Your task to perform on an android device: Go to Yahoo.com Image 0: 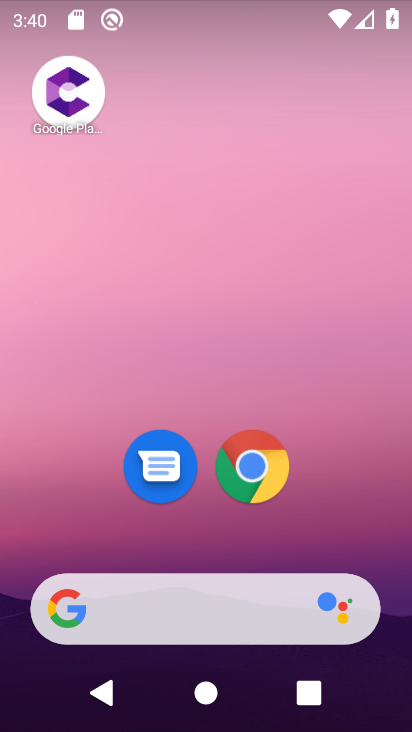
Step 0: click (254, 460)
Your task to perform on an android device: Go to Yahoo.com Image 1: 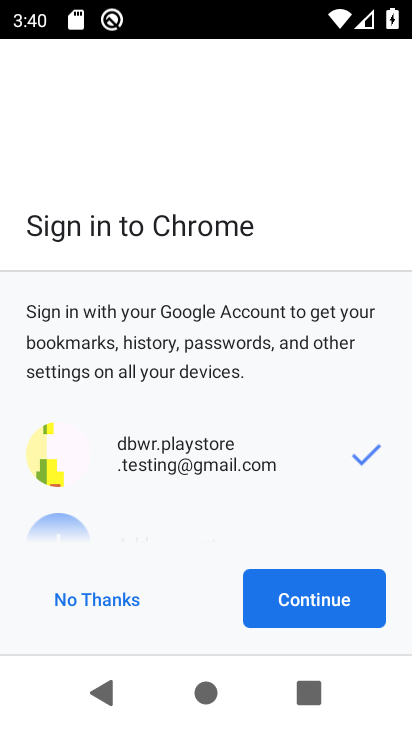
Step 1: click (328, 608)
Your task to perform on an android device: Go to Yahoo.com Image 2: 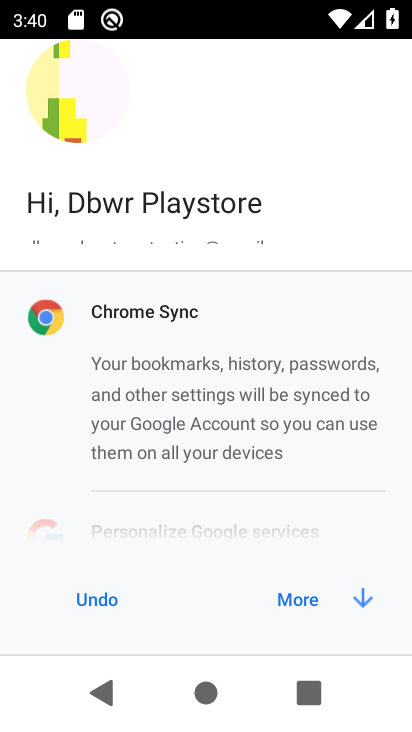
Step 2: click (313, 607)
Your task to perform on an android device: Go to Yahoo.com Image 3: 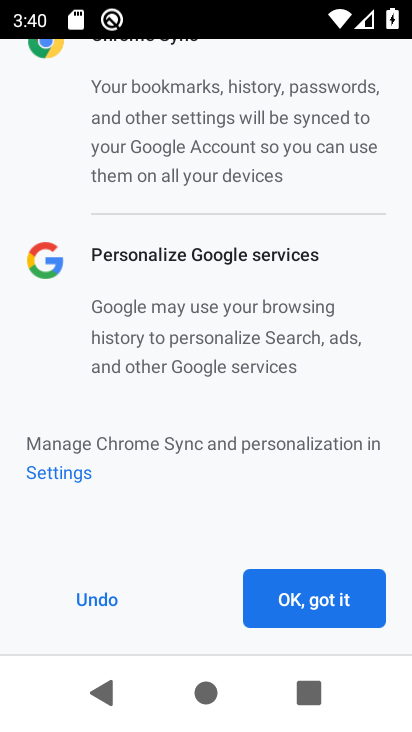
Step 3: click (329, 588)
Your task to perform on an android device: Go to Yahoo.com Image 4: 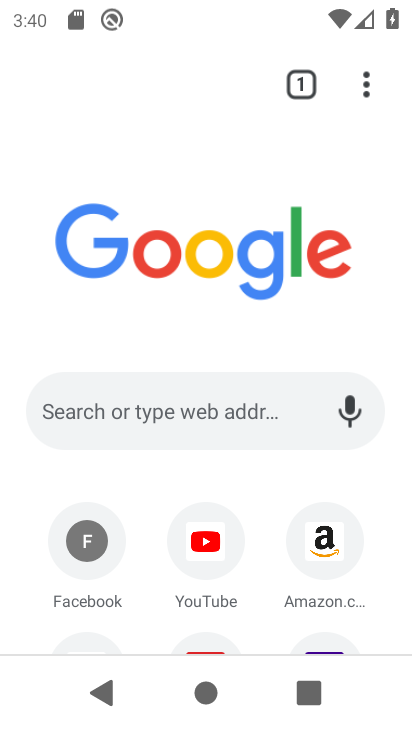
Step 4: drag from (150, 537) to (198, 149)
Your task to perform on an android device: Go to Yahoo.com Image 5: 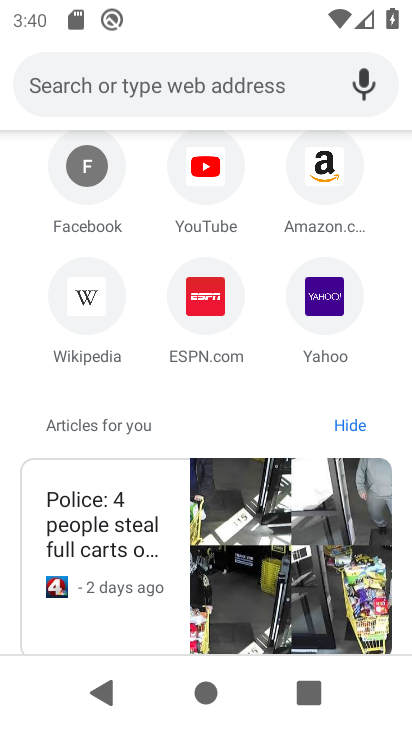
Step 5: click (319, 305)
Your task to perform on an android device: Go to Yahoo.com Image 6: 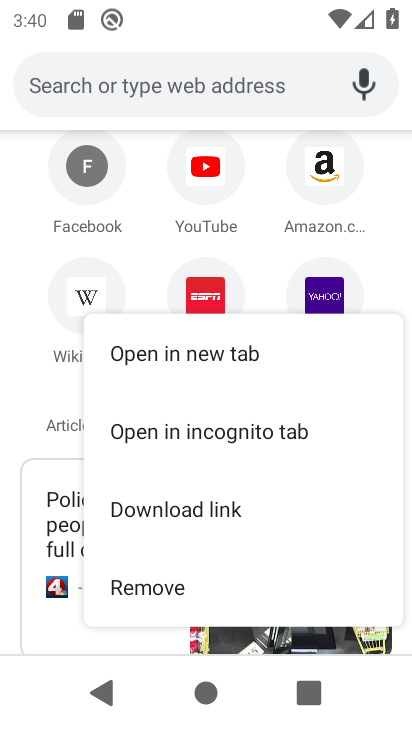
Step 6: click (309, 277)
Your task to perform on an android device: Go to Yahoo.com Image 7: 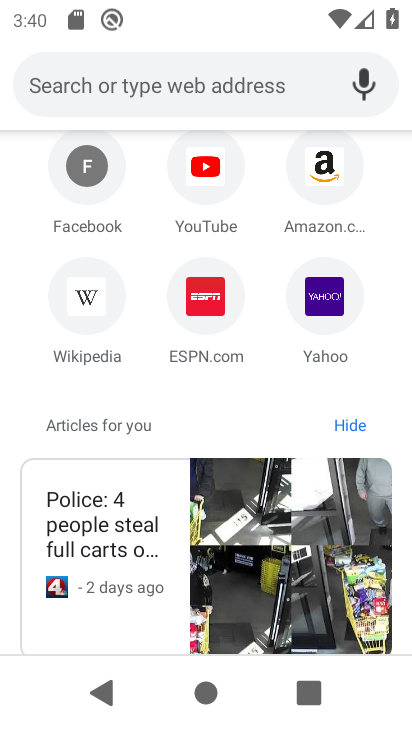
Step 7: click (342, 296)
Your task to perform on an android device: Go to Yahoo.com Image 8: 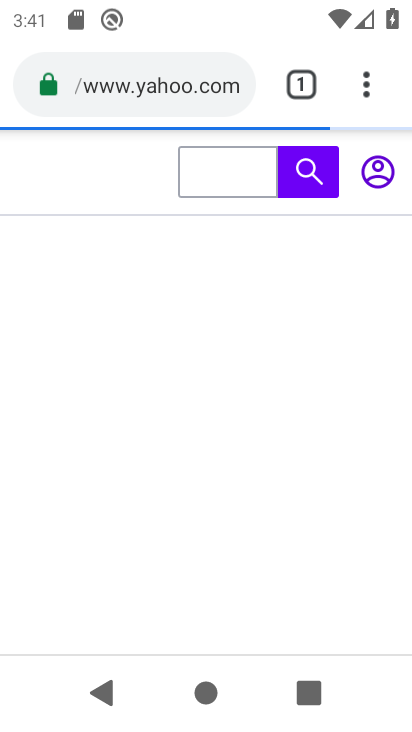
Step 8: task complete